Your task to perform on an android device: What is the news today? Image 0: 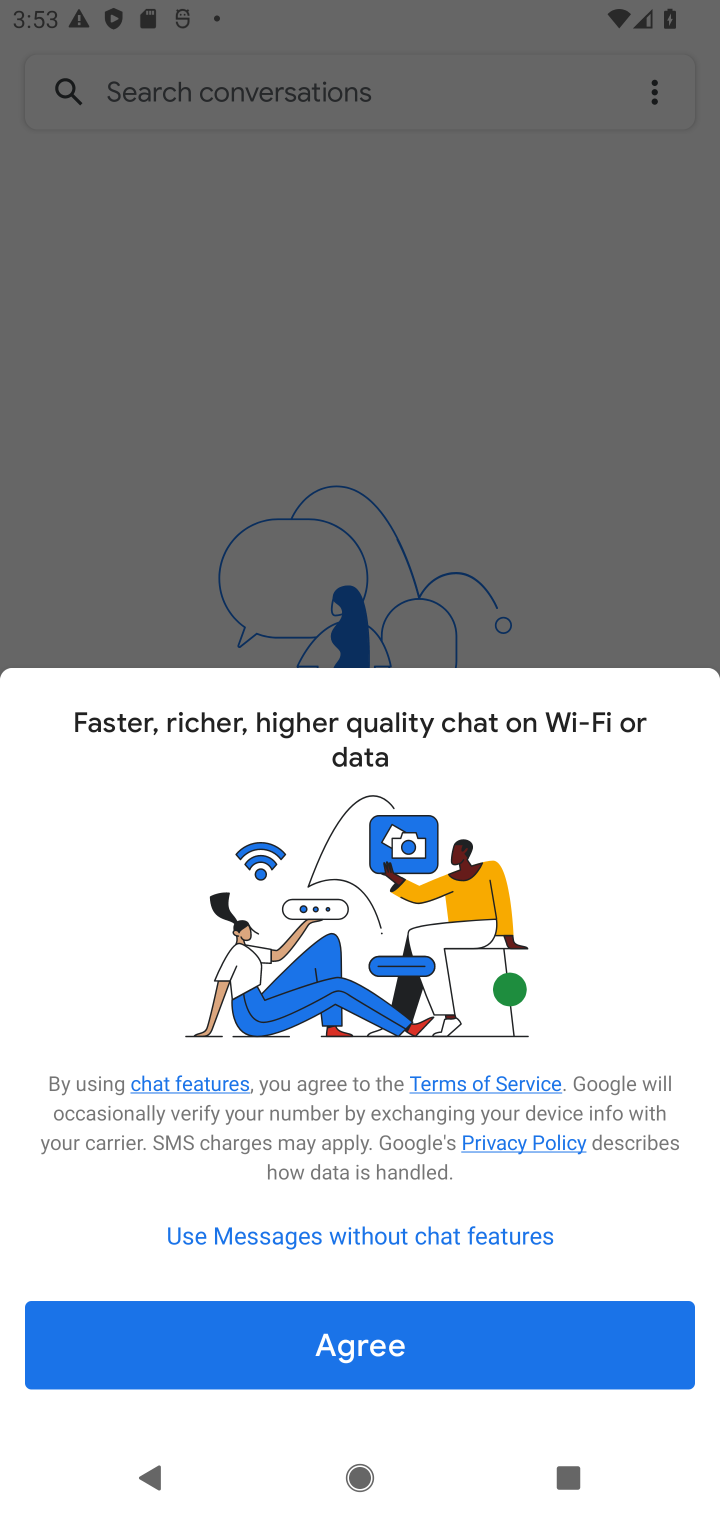
Step 0: press home button
Your task to perform on an android device: What is the news today? Image 1: 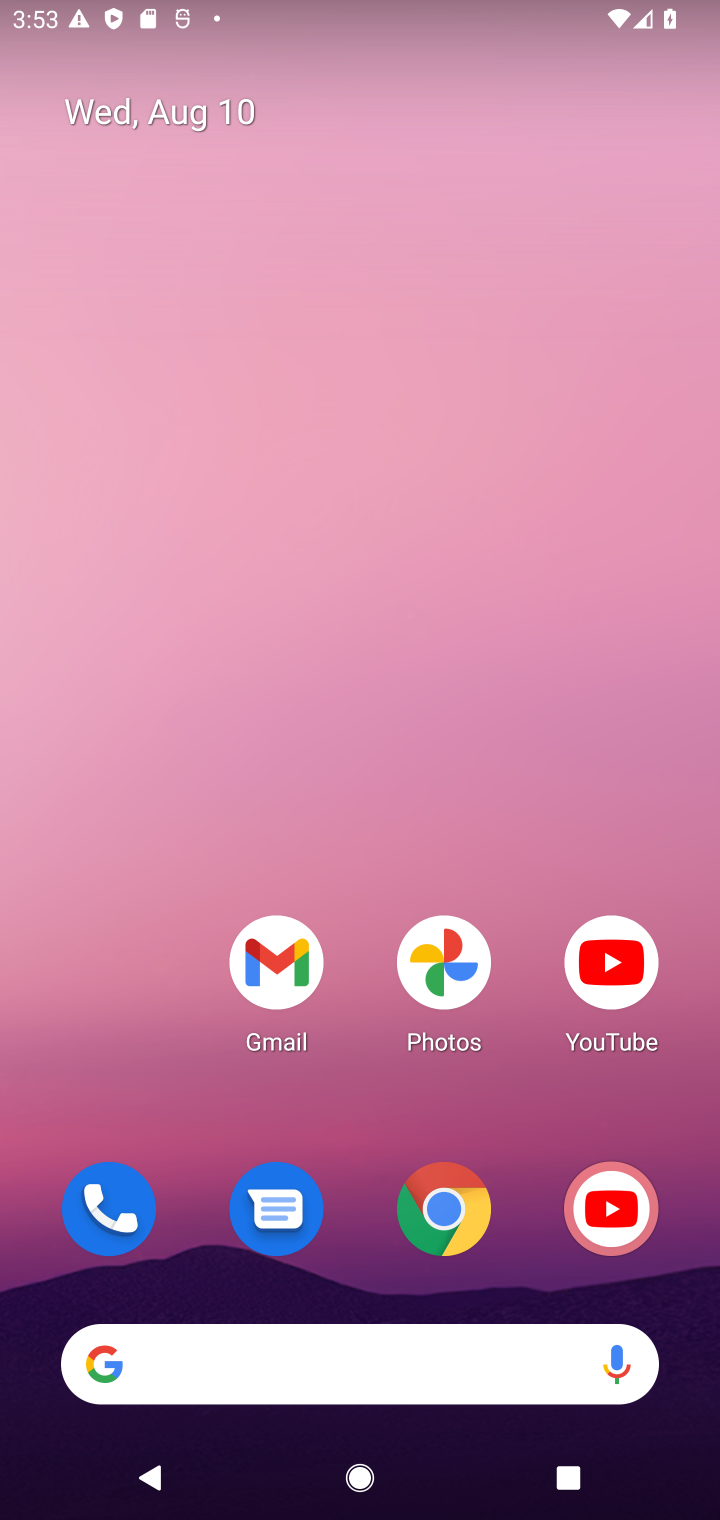
Step 1: click (440, 1375)
Your task to perform on an android device: What is the news today? Image 2: 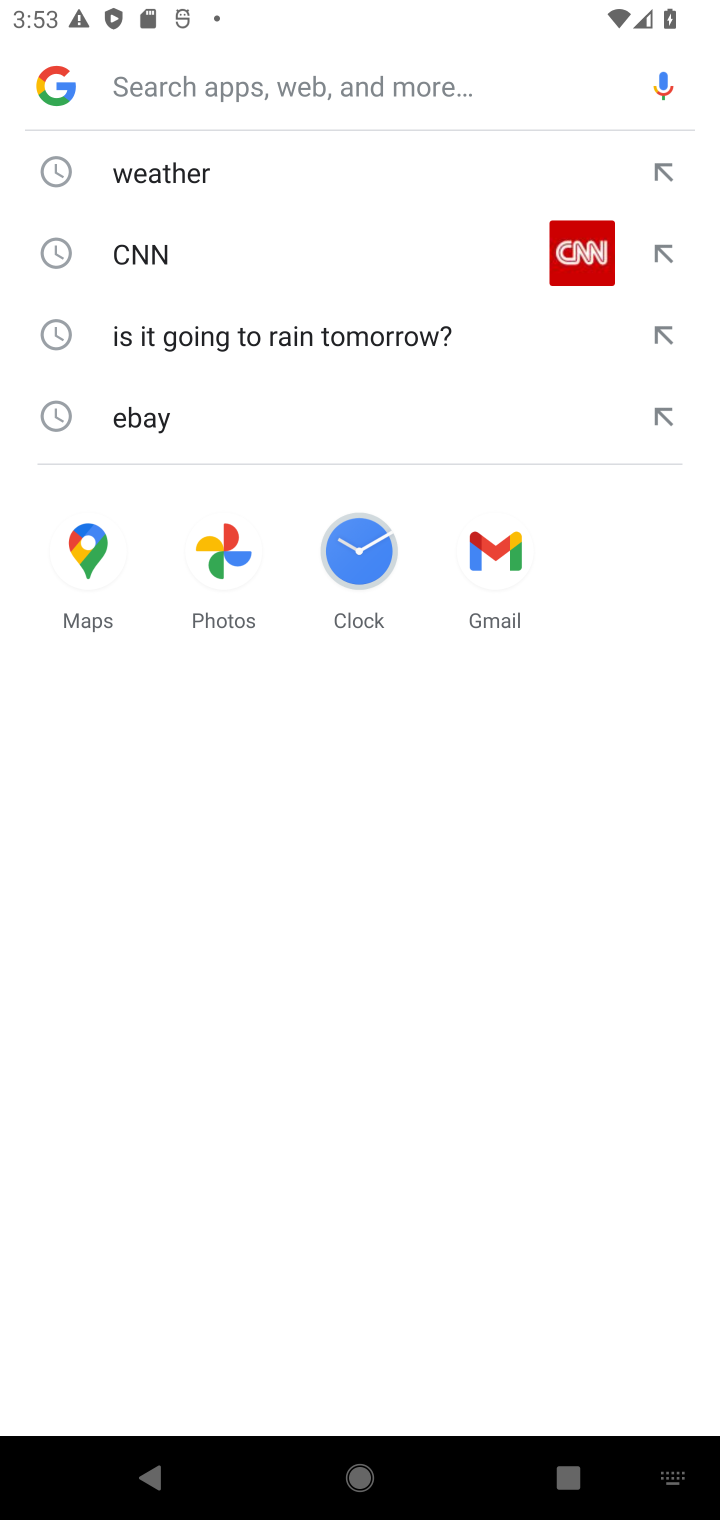
Step 2: click (62, 96)
Your task to perform on an android device: What is the news today? Image 3: 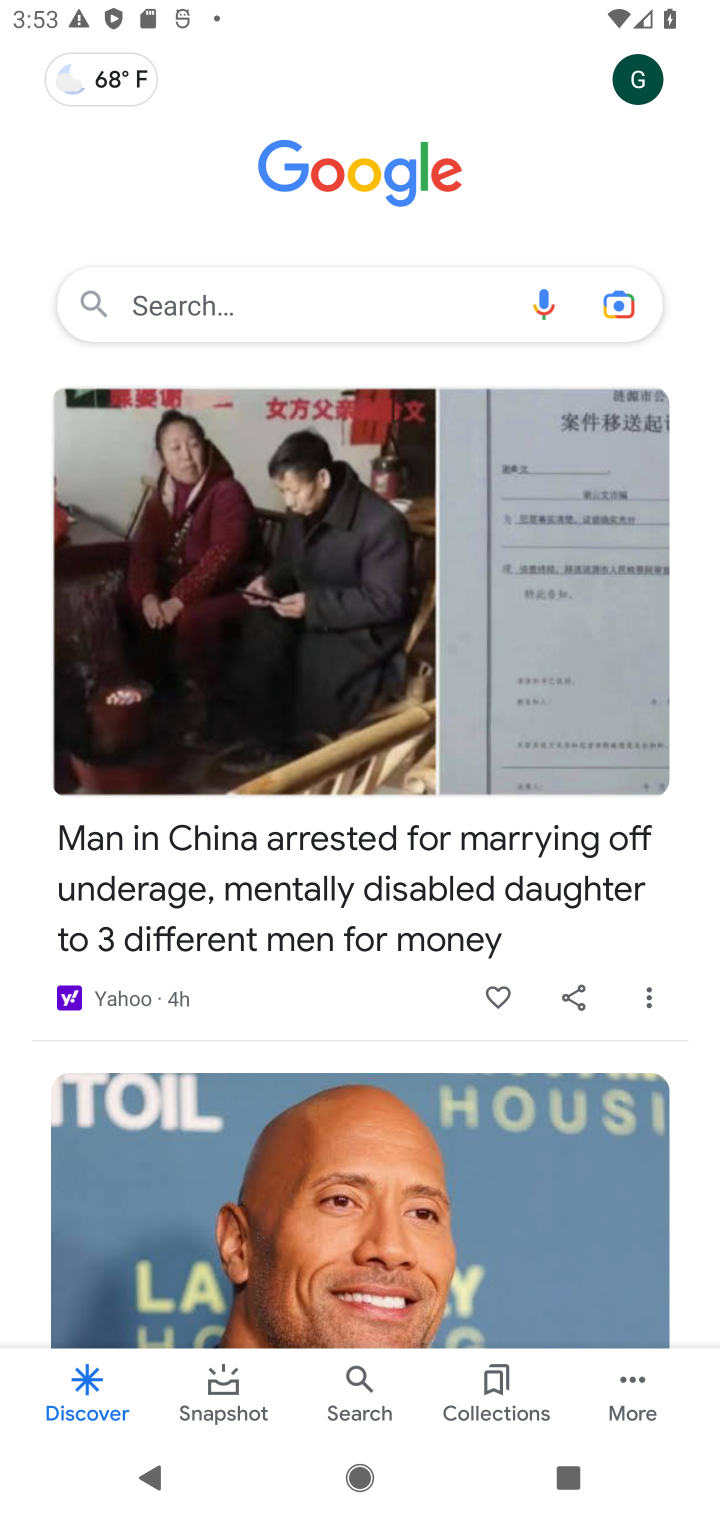
Step 3: task complete